Your task to perform on an android device: Go to battery settings Image 0: 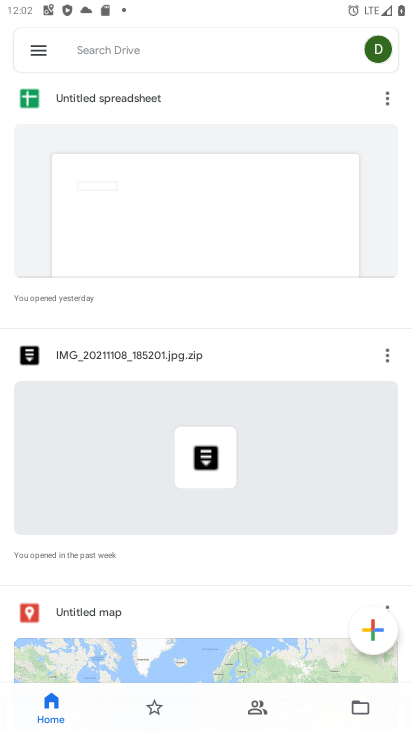
Step 0: press home button
Your task to perform on an android device: Go to battery settings Image 1: 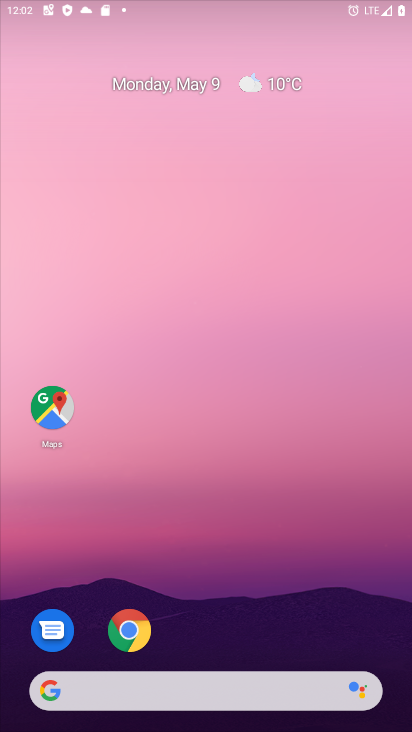
Step 1: drag from (359, 617) to (271, 12)
Your task to perform on an android device: Go to battery settings Image 2: 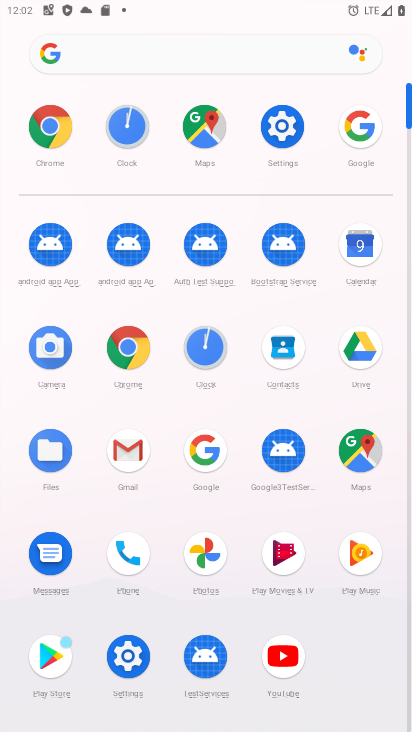
Step 2: click (132, 661)
Your task to perform on an android device: Go to battery settings Image 3: 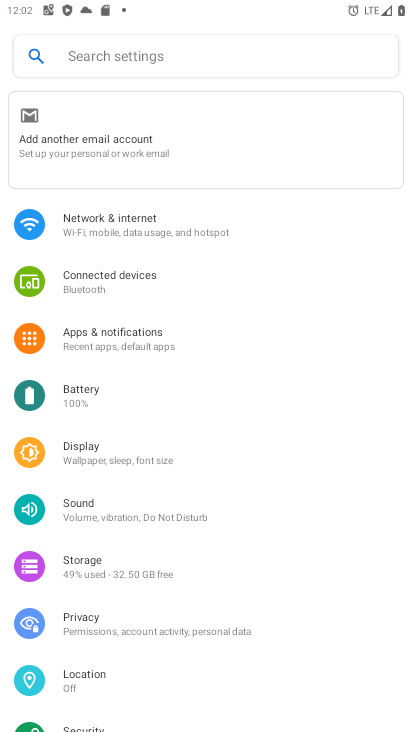
Step 3: click (125, 402)
Your task to perform on an android device: Go to battery settings Image 4: 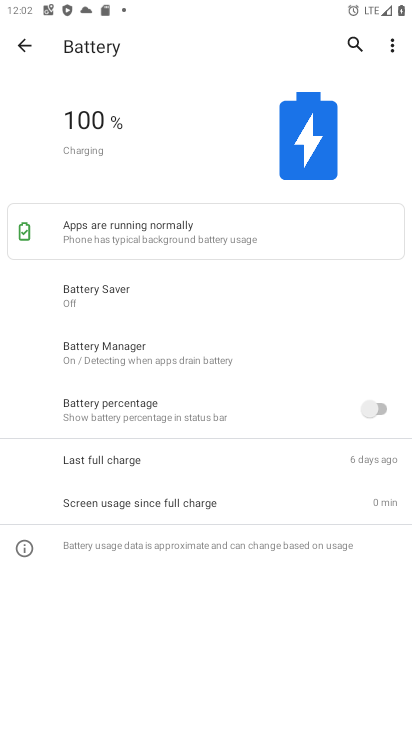
Step 4: task complete